Your task to perform on an android device: turn on sleep mode Image 0: 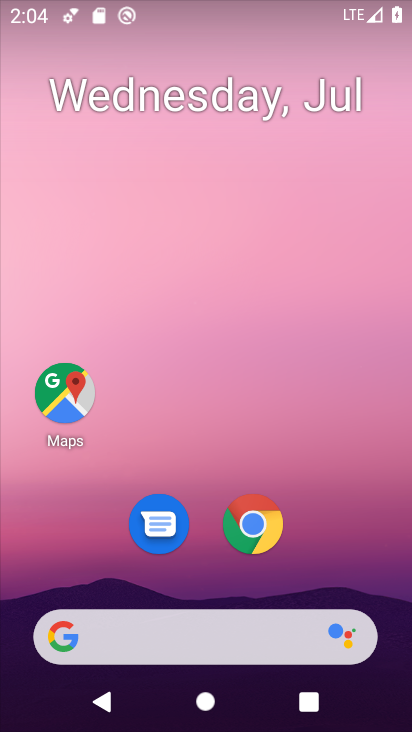
Step 0: drag from (205, 458) to (208, 0)
Your task to perform on an android device: turn on sleep mode Image 1: 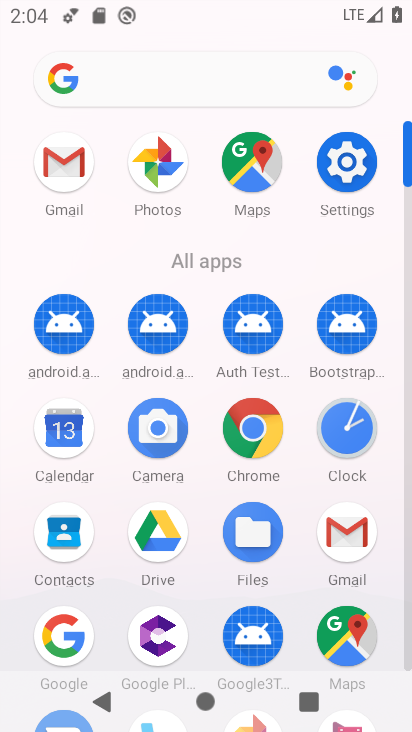
Step 1: click (345, 168)
Your task to perform on an android device: turn on sleep mode Image 2: 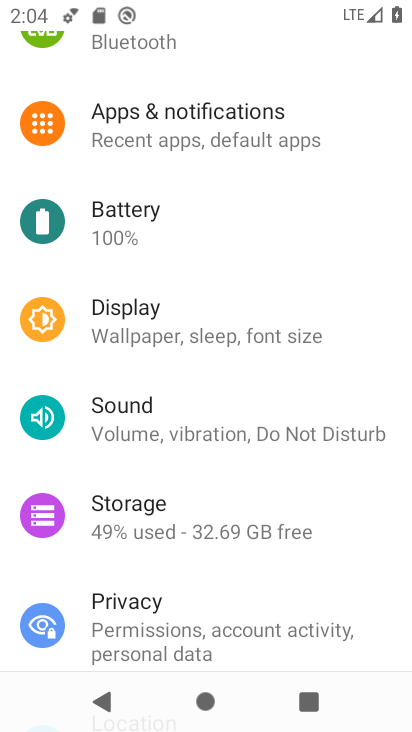
Step 2: click (202, 326)
Your task to perform on an android device: turn on sleep mode Image 3: 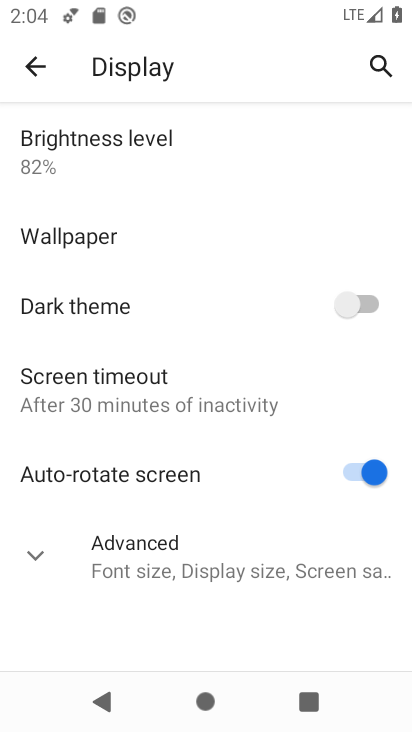
Step 3: click (34, 555)
Your task to perform on an android device: turn on sleep mode Image 4: 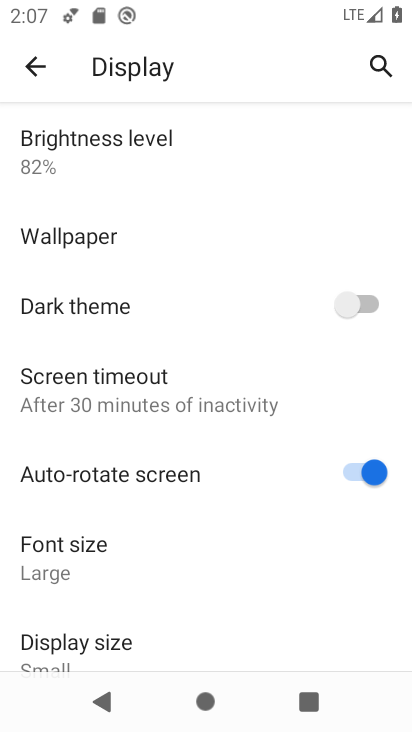
Step 4: task complete